Your task to perform on an android device: Search for pizza restaurants on Maps Image 0: 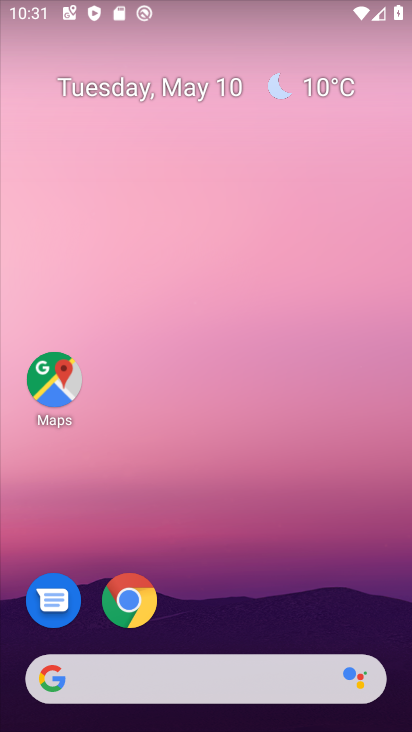
Step 0: click (49, 374)
Your task to perform on an android device: Search for pizza restaurants on Maps Image 1: 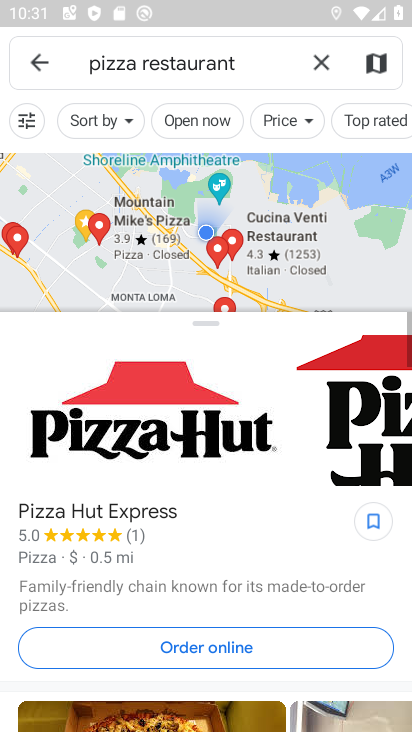
Step 1: task complete